Your task to perform on an android device: Open Yahoo.com Image 0: 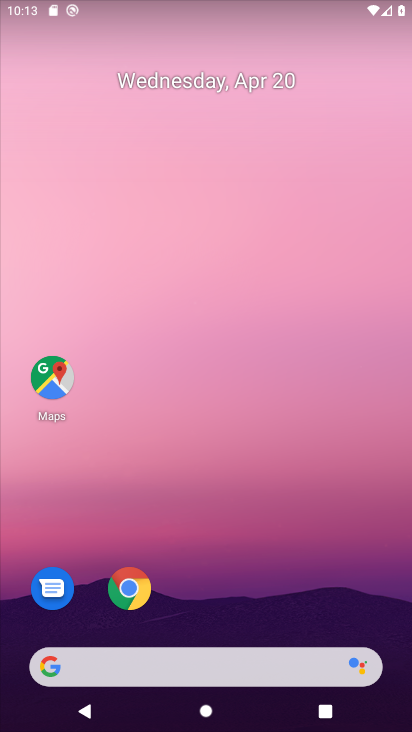
Step 0: click (127, 589)
Your task to perform on an android device: Open Yahoo.com Image 1: 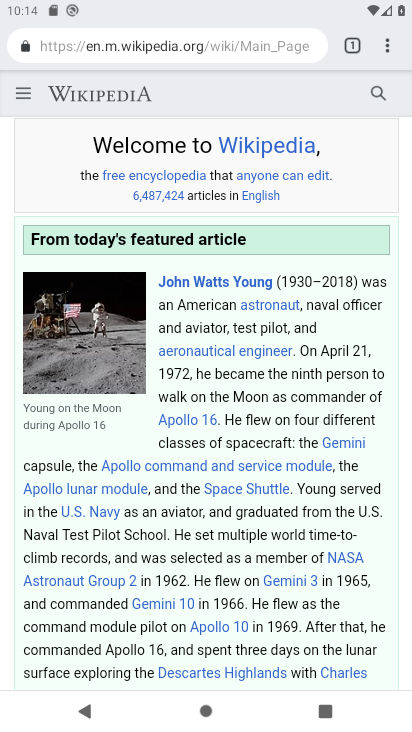
Step 1: click (388, 46)
Your task to perform on an android device: Open Yahoo.com Image 2: 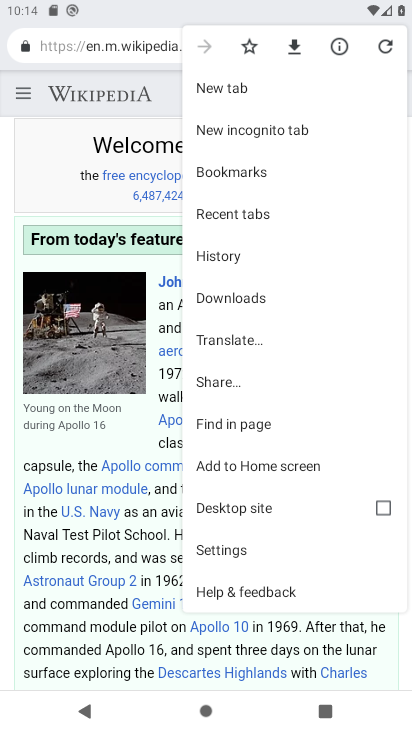
Step 2: click (220, 84)
Your task to perform on an android device: Open Yahoo.com Image 3: 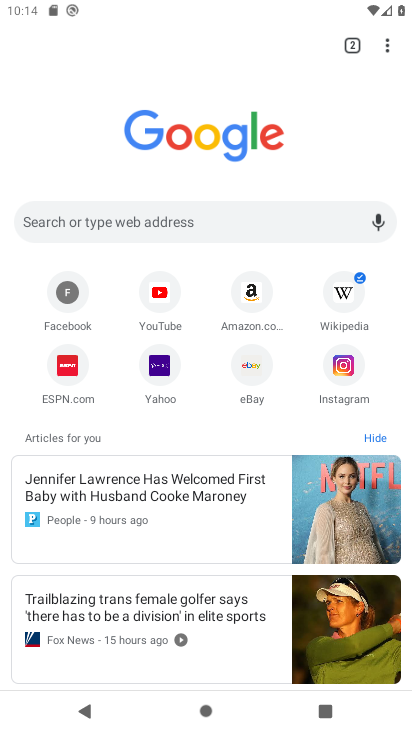
Step 3: click (157, 374)
Your task to perform on an android device: Open Yahoo.com Image 4: 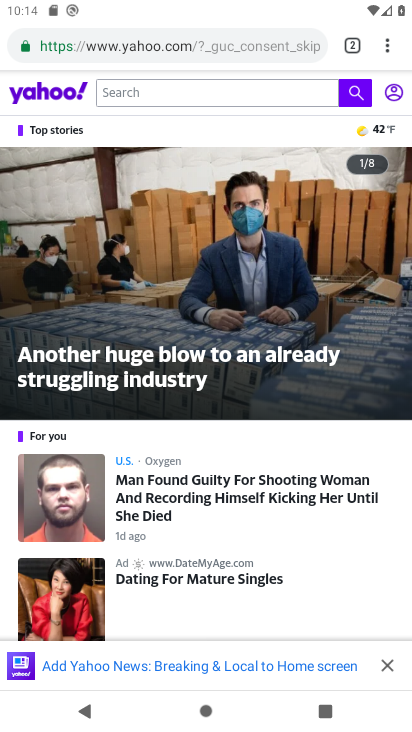
Step 4: task complete